Your task to perform on an android device: change the clock style Image 0: 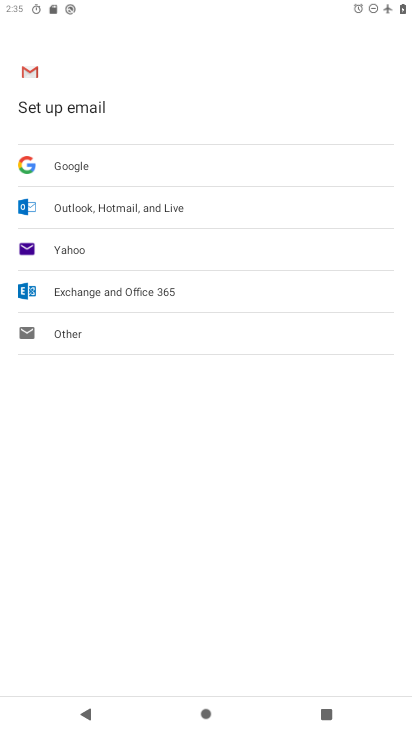
Step 0: drag from (181, 657) to (287, 286)
Your task to perform on an android device: change the clock style Image 1: 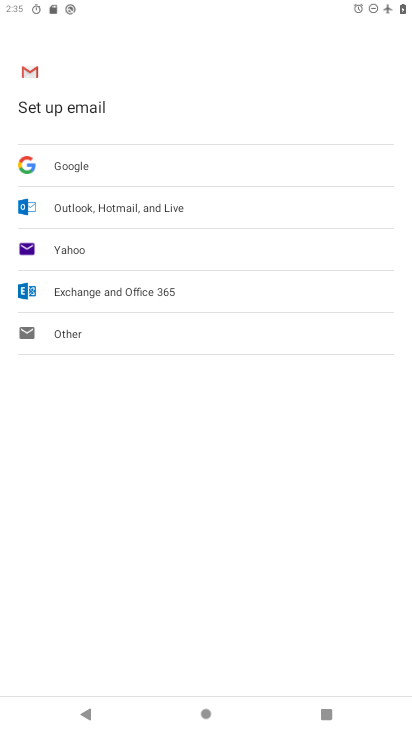
Step 1: press home button
Your task to perform on an android device: change the clock style Image 2: 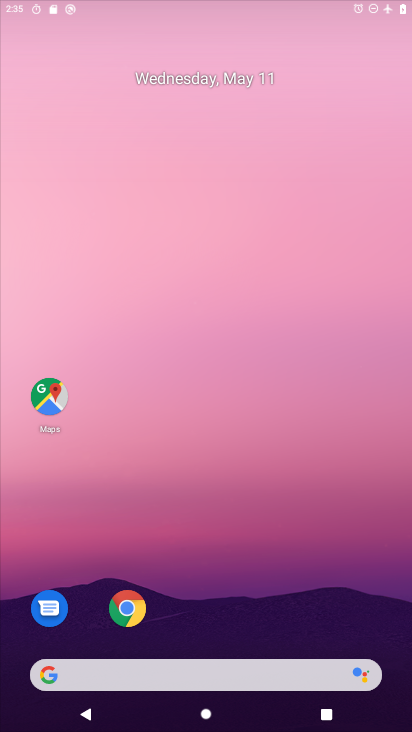
Step 2: drag from (200, 699) to (267, 188)
Your task to perform on an android device: change the clock style Image 3: 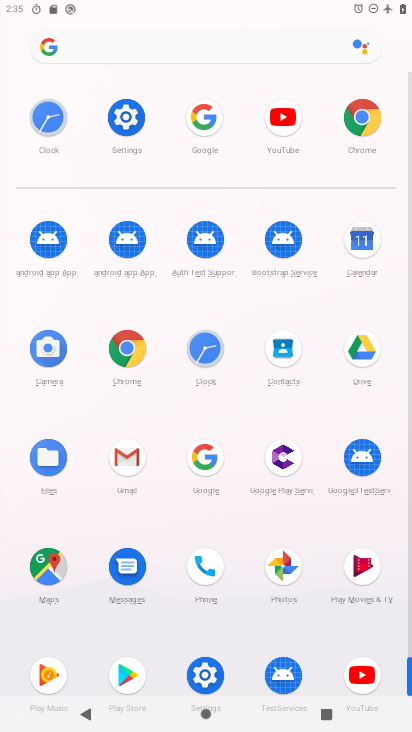
Step 3: click (201, 366)
Your task to perform on an android device: change the clock style Image 4: 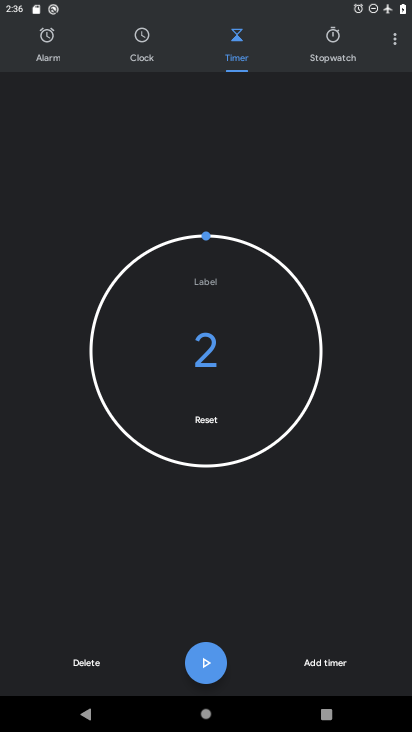
Step 4: click (398, 32)
Your task to perform on an android device: change the clock style Image 5: 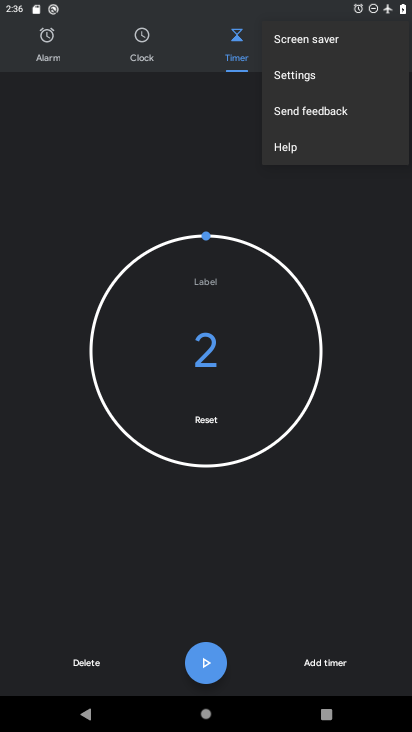
Step 5: click (293, 78)
Your task to perform on an android device: change the clock style Image 6: 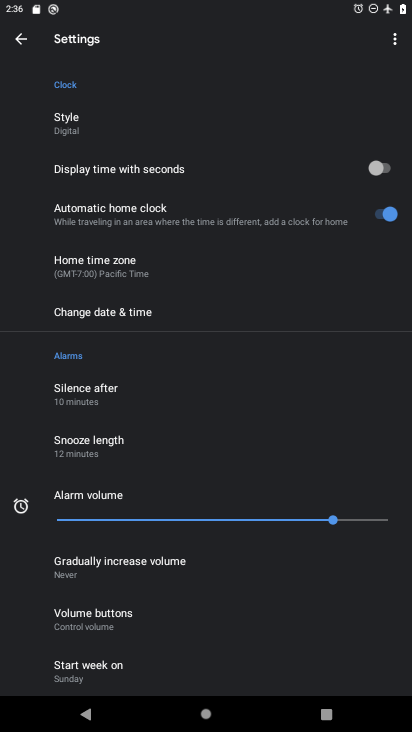
Step 6: click (126, 135)
Your task to perform on an android device: change the clock style Image 7: 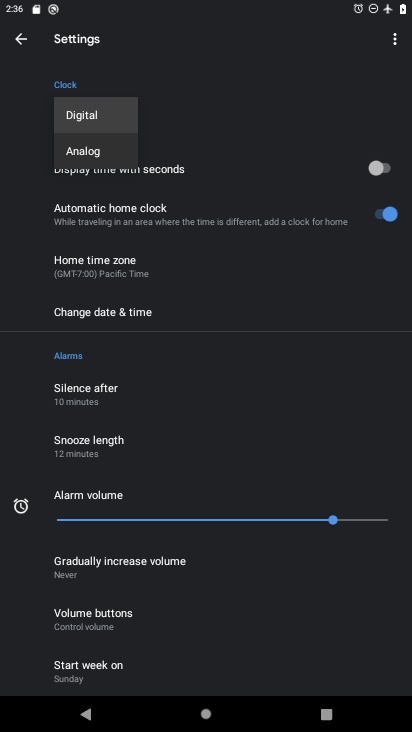
Step 7: click (94, 151)
Your task to perform on an android device: change the clock style Image 8: 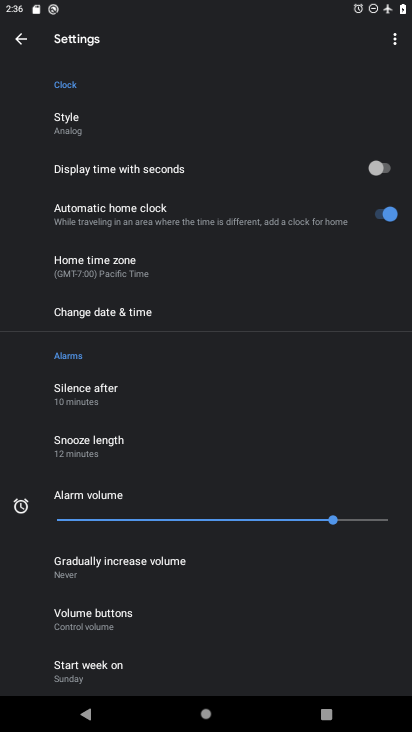
Step 8: task complete